Your task to perform on an android device: show emergency info Image 0: 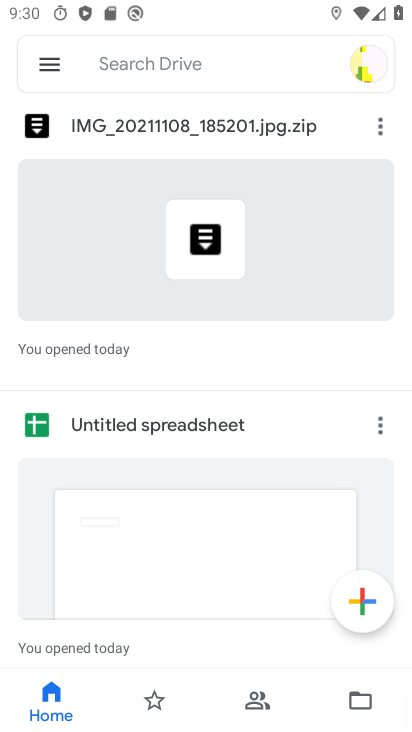
Step 0: press home button
Your task to perform on an android device: show emergency info Image 1: 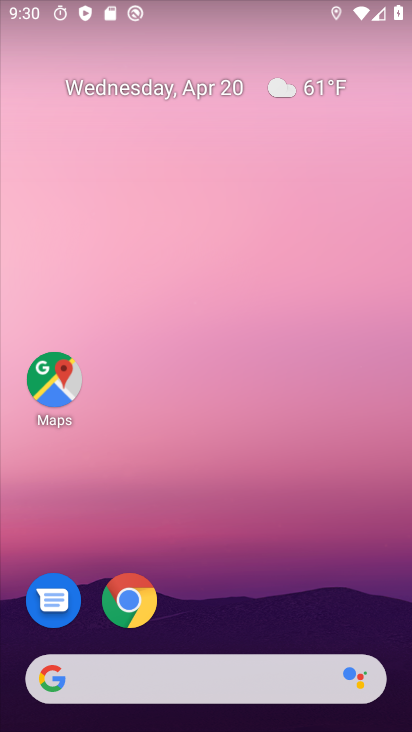
Step 1: drag from (329, 594) to (347, 4)
Your task to perform on an android device: show emergency info Image 2: 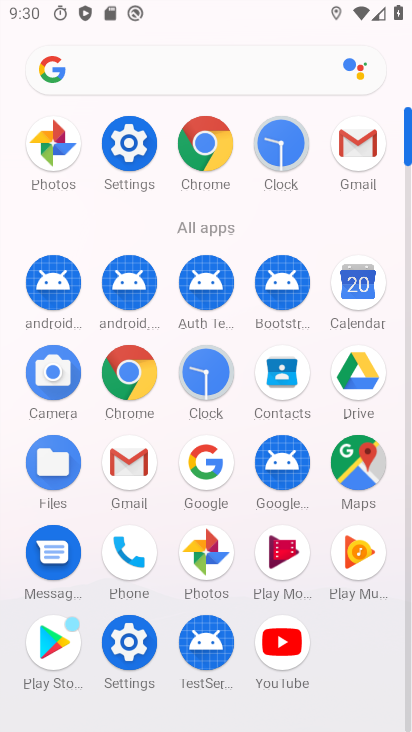
Step 2: click (127, 149)
Your task to perform on an android device: show emergency info Image 3: 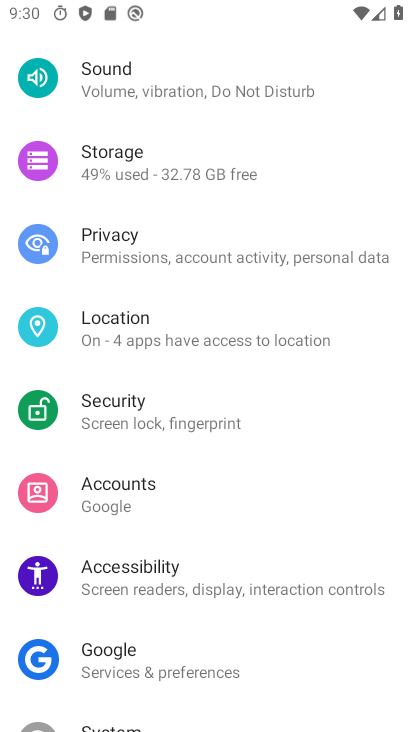
Step 3: drag from (327, 487) to (300, 35)
Your task to perform on an android device: show emergency info Image 4: 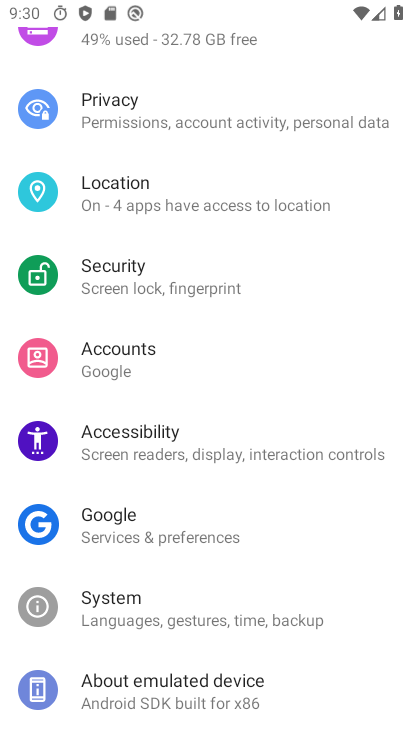
Step 4: click (153, 690)
Your task to perform on an android device: show emergency info Image 5: 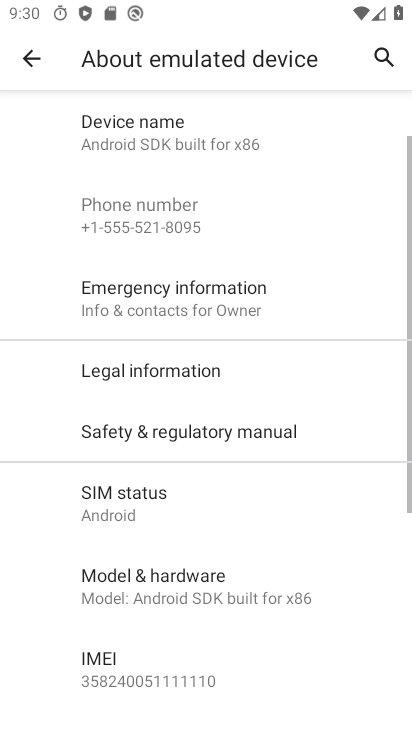
Step 5: click (155, 309)
Your task to perform on an android device: show emergency info Image 6: 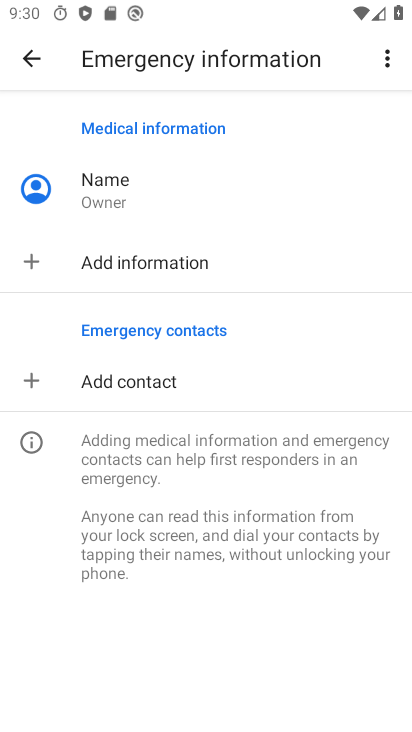
Step 6: task complete